Your task to perform on an android device: Show me productivity apps on the Play Store Image 0: 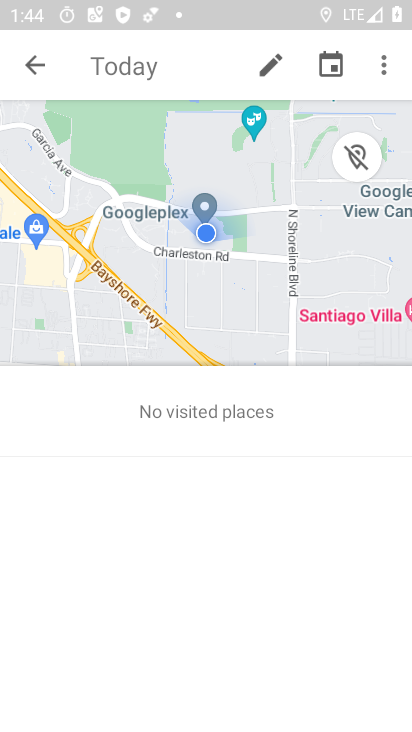
Step 0: press home button
Your task to perform on an android device: Show me productivity apps on the Play Store Image 1: 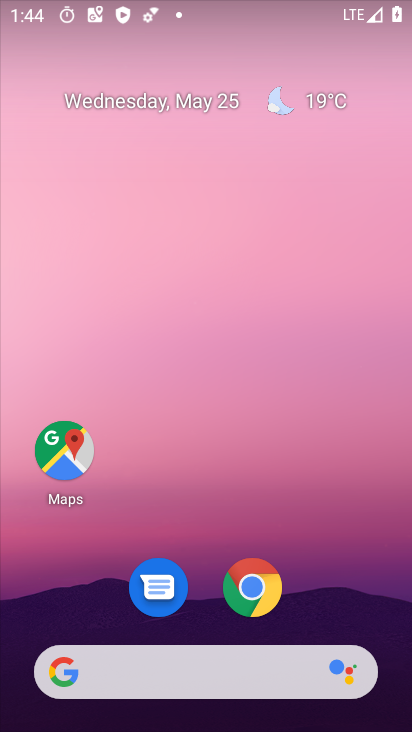
Step 1: drag from (227, 720) to (233, 139)
Your task to perform on an android device: Show me productivity apps on the Play Store Image 2: 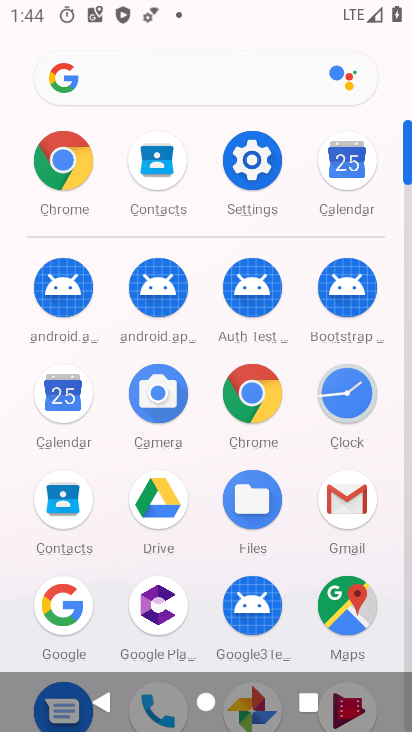
Step 2: drag from (217, 600) to (215, 286)
Your task to perform on an android device: Show me productivity apps on the Play Store Image 3: 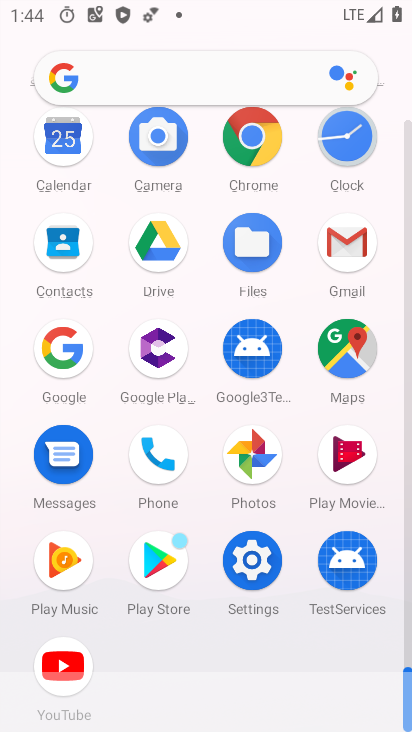
Step 3: click (162, 552)
Your task to perform on an android device: Show me productivity apps on the Play Store Image 4: 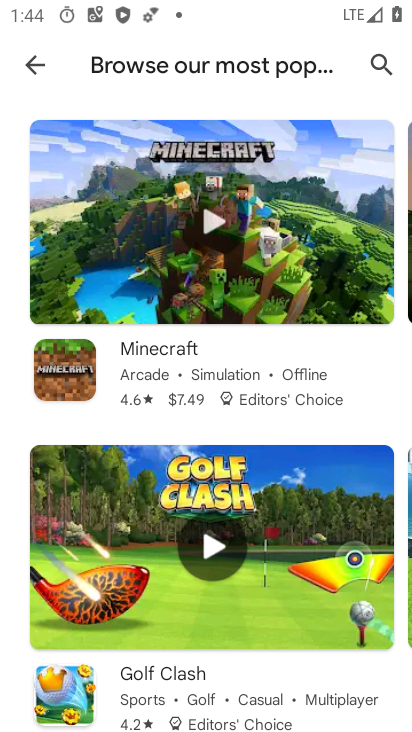
Step 4: click (40, 58)
Your task to perform on an android device: Show me productivity apps on the Play Store Image 5: 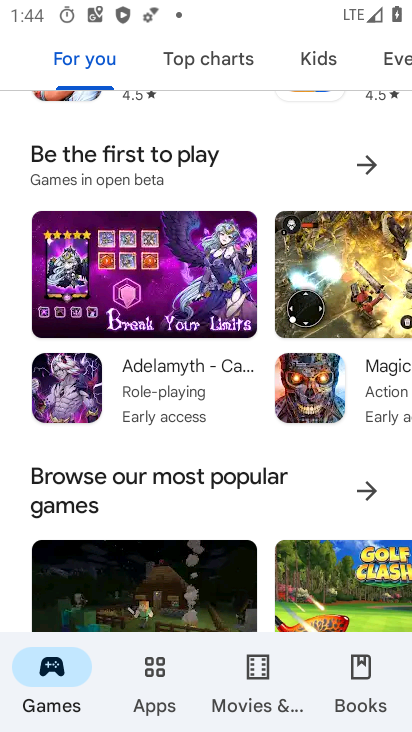
Step 5: click (158, 674)
Your task to perform on an android device: Show me productivity apps on the Play Store Image 6: 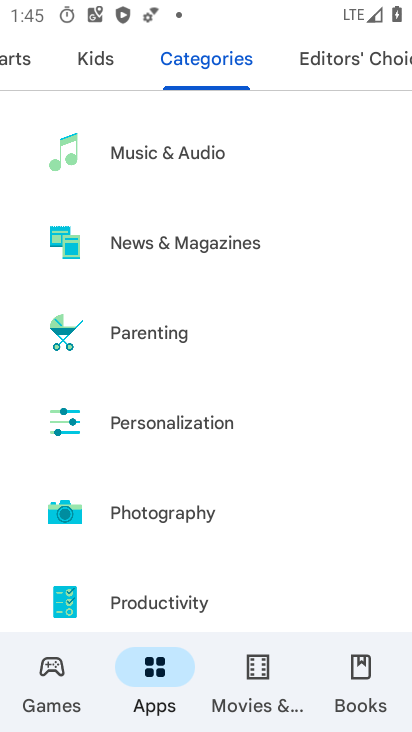
Step 6: click (167, 604)
Your task to perform on an android device: Show me productivity apps on the Play Store Image 7: 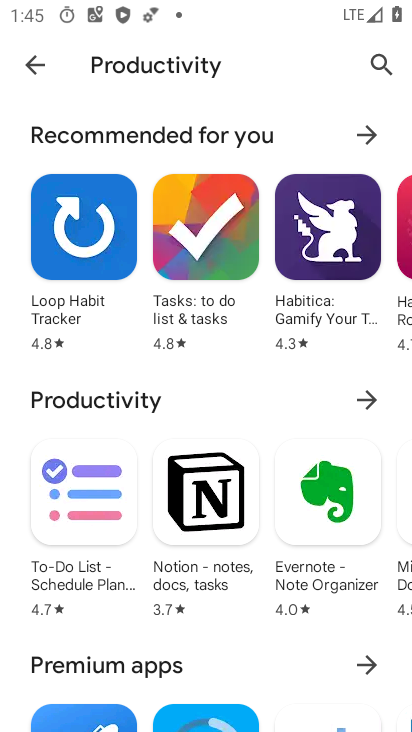
Step 7: task complete